Your task to perform on an android device: open sync settings in chrome Image 0: 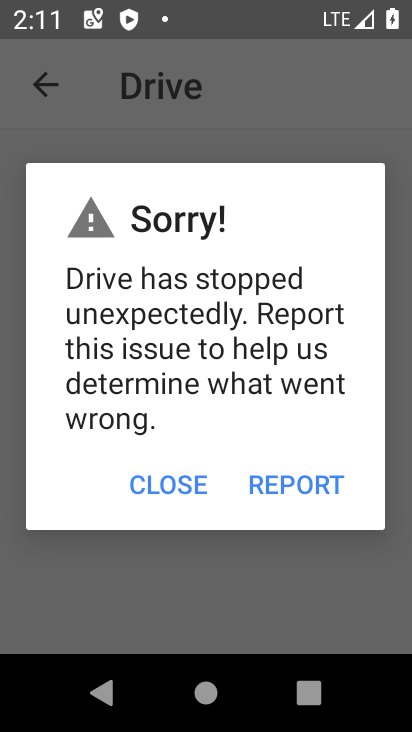
Step 0: press home button
Your task to perform on an android device: open sync settings in chrome Image 1: 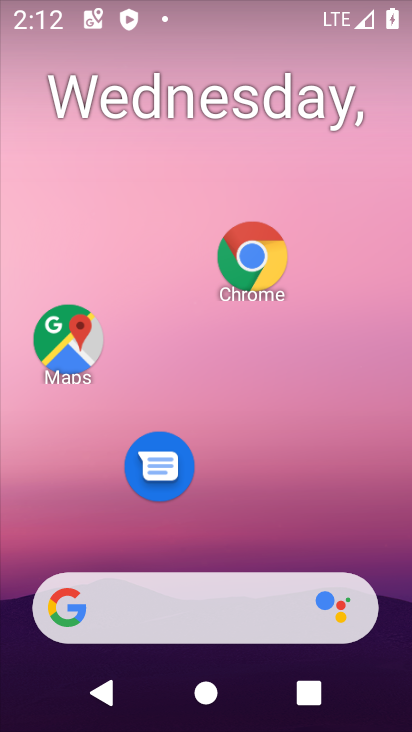
Step 1: click (242, 252)
Your task to perform on an android device: open sync settings in chrome Image 2: 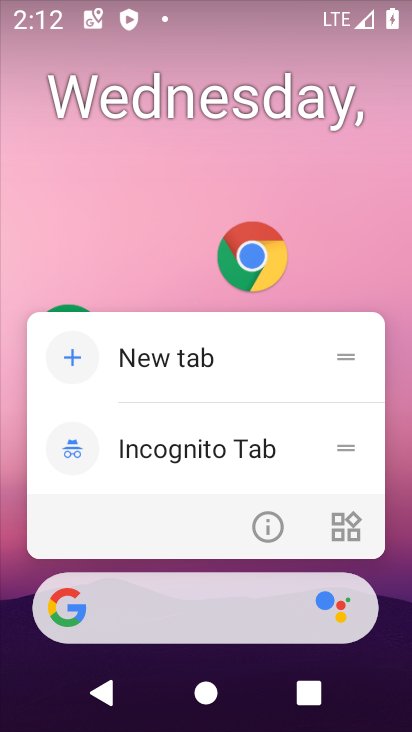
Step 2: click (242, 252)
Your task to perform on an android device: open sync settings in chrome Image 3: 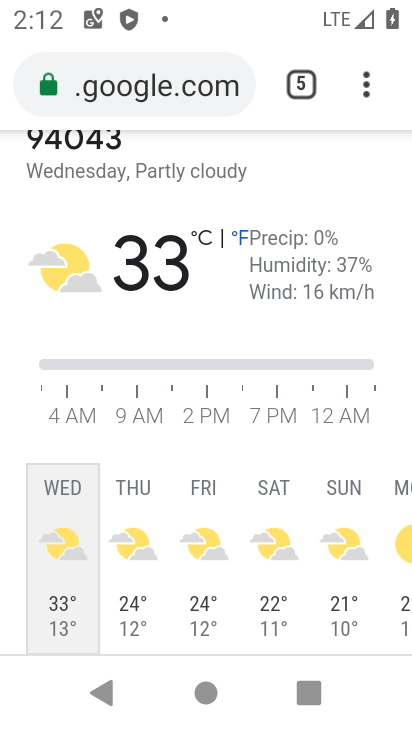
Step 3: drag from (372, 89) to (82, 530)
Your task to perform on an android device: open sync settings in chrome Image 4: 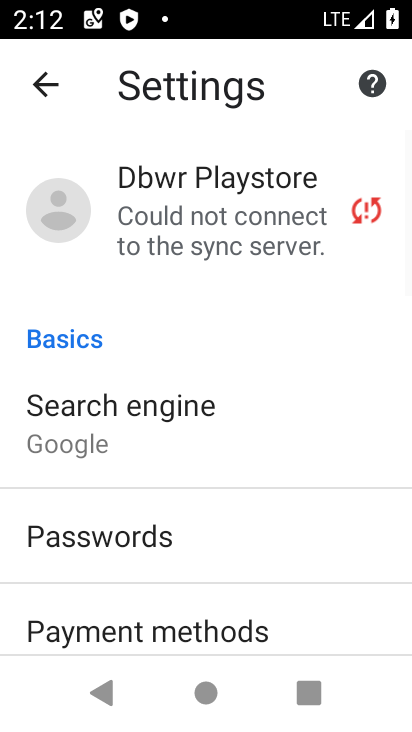
Step 4: click (127, 239)
Your task to perform on an android device: open sync settings in chrome Image 5: 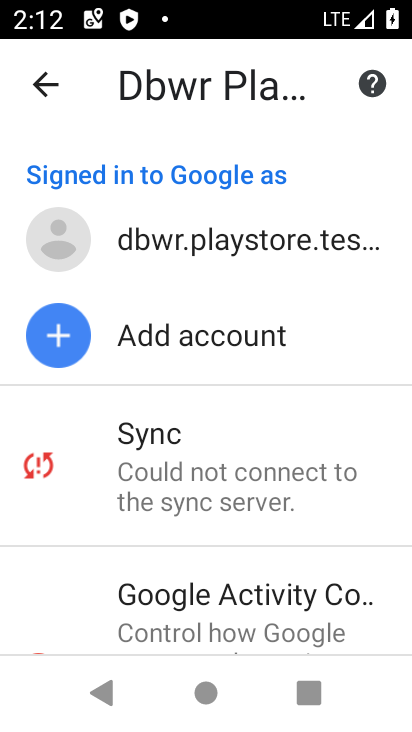
Step 5: click (182, 434)
Your task to perform on an android device: open sync settings in chrome Image 6: 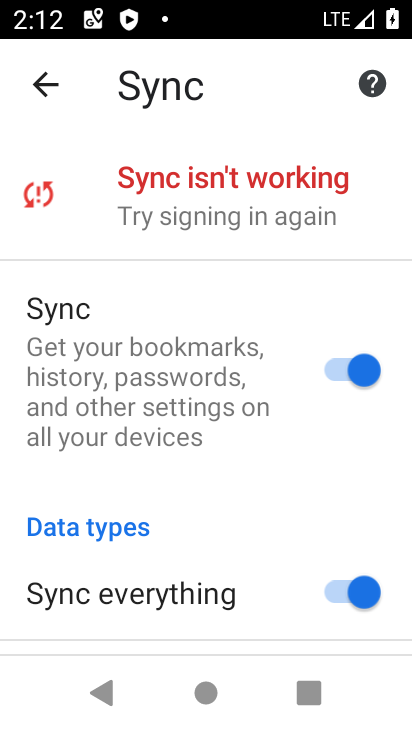
Step 6: task complete